Your task to perform on an android device: toggle priority inbox in the gmail app Image 0: 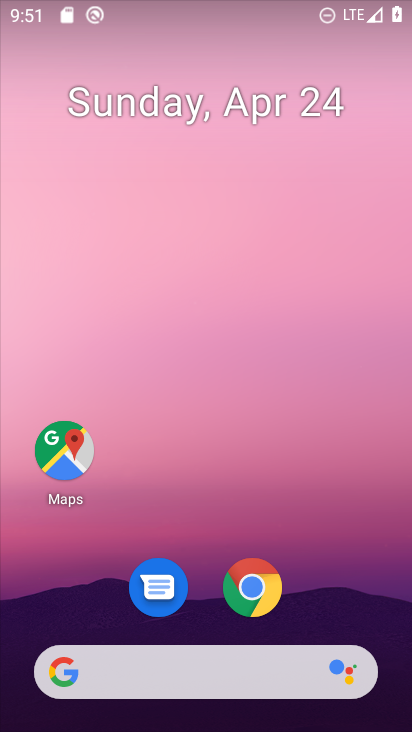
Step 0: drag from (373, 544) to (362, 119)
Your task to perform on an android device: toggle priority inbox in the gmail app Image 1: 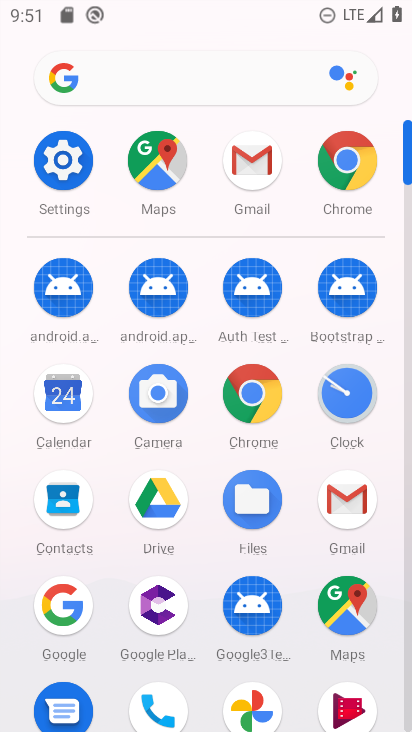
Step 1: click (339, 497)
Your task to perform on an android device: toggle priority inbox in the gmail app Image 2: 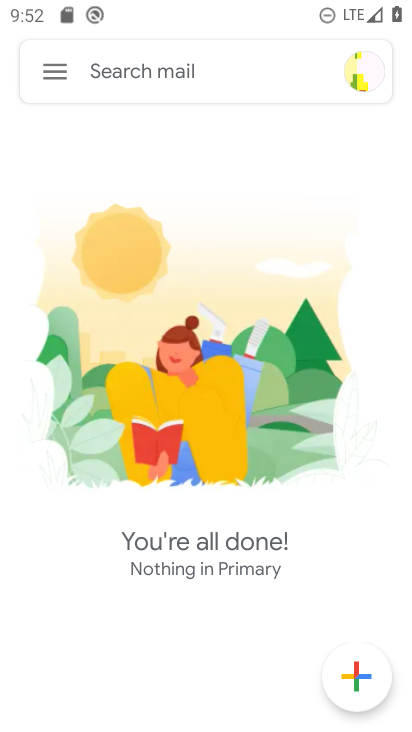
Step 2: click (53, 71)
Your task to perform on an android device: toggle priority inbox in the gmail app Image 3: 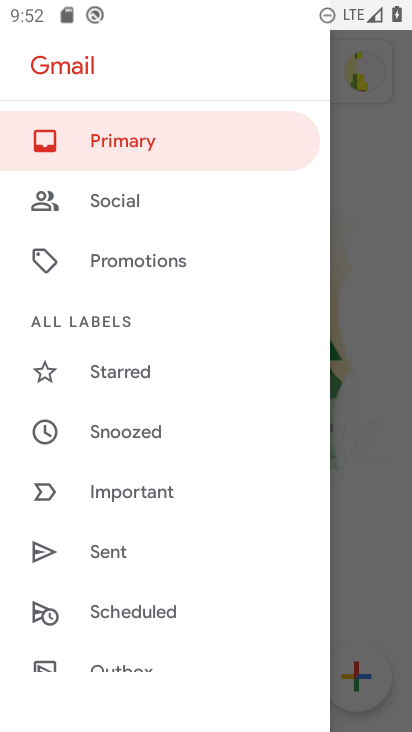
Step 3: drag from (229, 639) to (222, 211)
Your task to perform on an android device: toggle priority inbox in the gmail app Image 4: 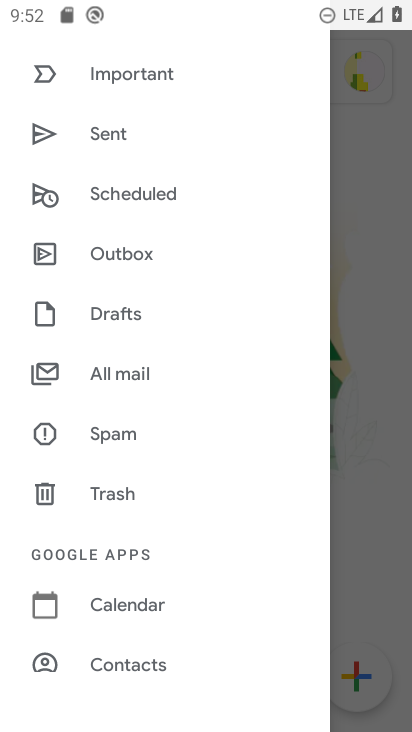
Step 4: drag from (190, 664) to (242, 234)
Your task to perform on an android device: toggle priority inbox in the gmail app Image 5: 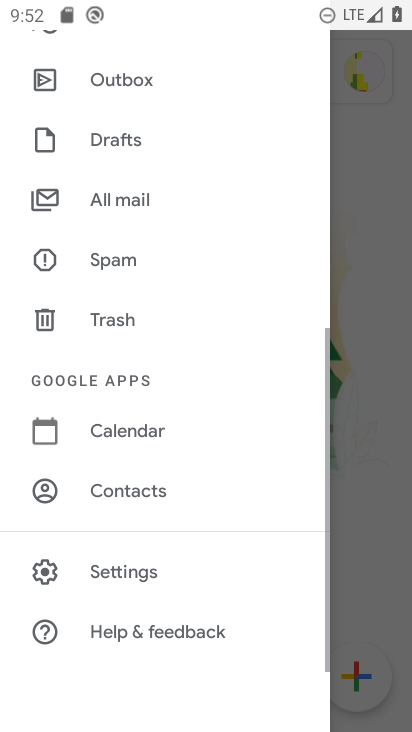
Step 5: click (143, 569)
Your task to perform on an android device: toggle priority inbox in the gmail app Image 6: 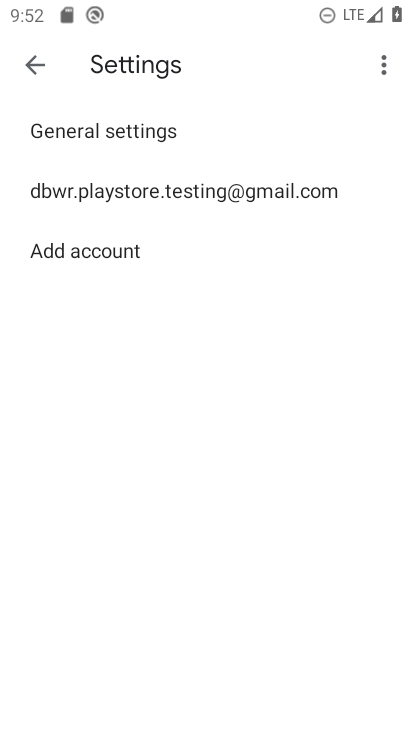
Step 6: click (158, 187)
Your task to perform on an android device: toggle priority inbox in the gmail app Image 7: 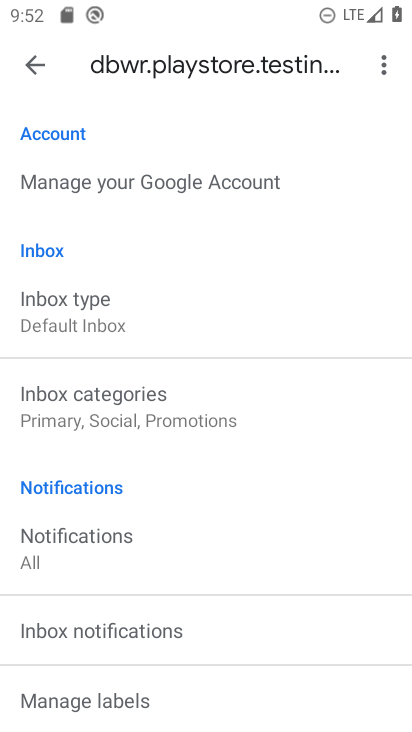
Step 7: click (94, 298)
Your task to perform on an android device: toggle priority inbox in the gmail app Image 8: 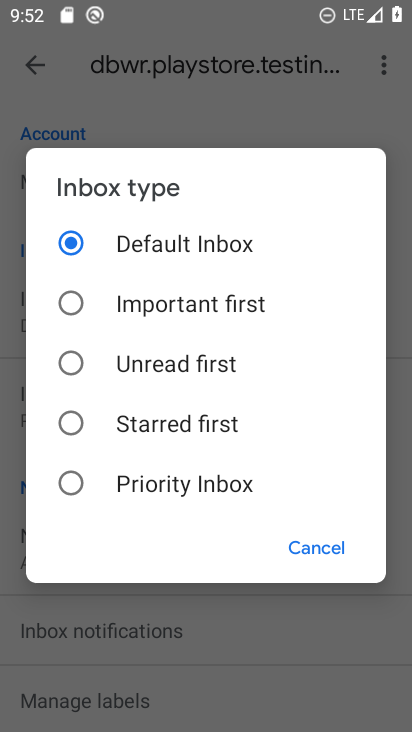
Step 8: click (73, 477)
Your task to perform on an android device: toggle priority inbox in the gmail app Image 9: 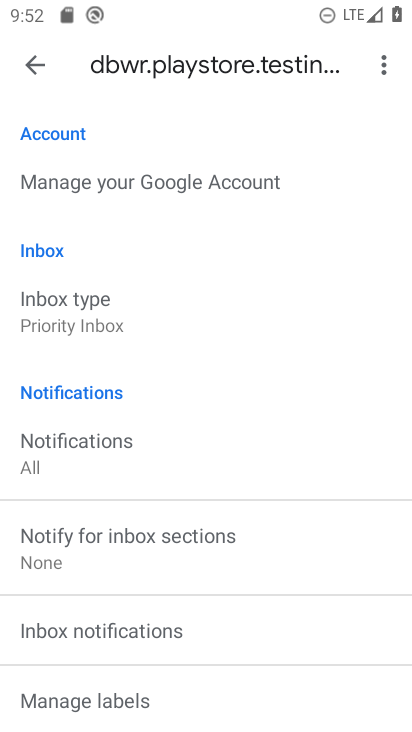
Step 9: task complete